Your task to perform on an android device: add a label to a message in the gmail app Image 0: 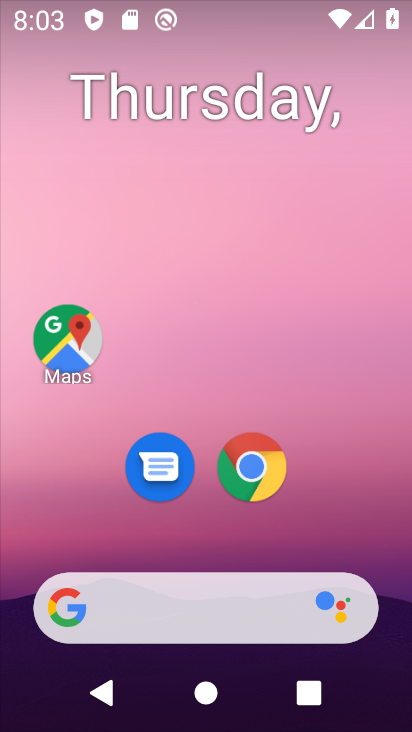
Step 0: drag from (351, 542) to (357, 234)
Your task to perform on an android device: add a label to a message in the gmail app Image 1: 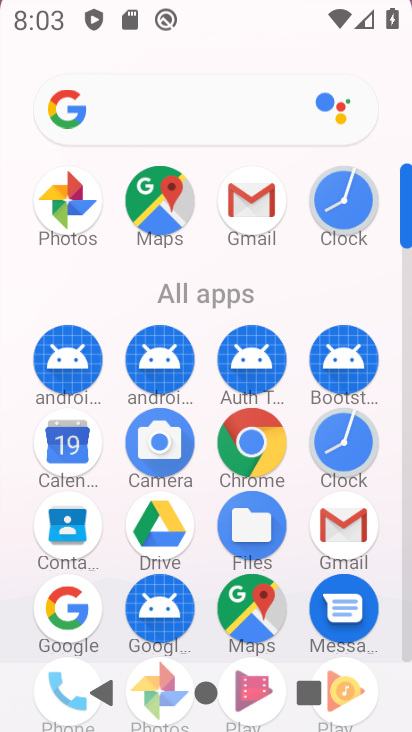
Step 1: drag from (183, 576) to (205, 328)
Your task to perform on an android device: add a label to a message in the gmail app Image 2: 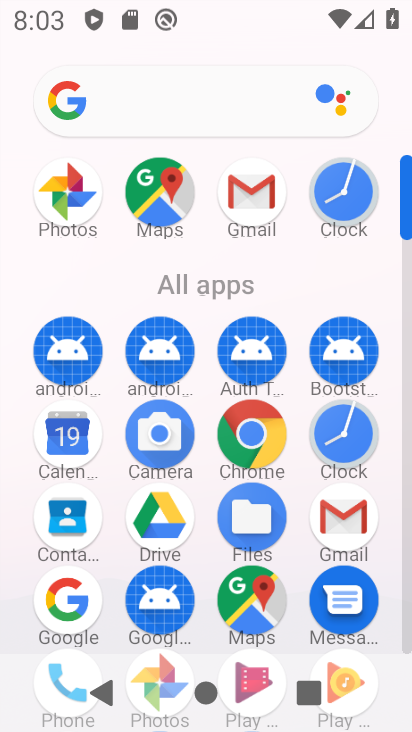
Step 2: click (332, 512)
Your task to perform on an android device: add a label to a message in the gmail app Image 3: 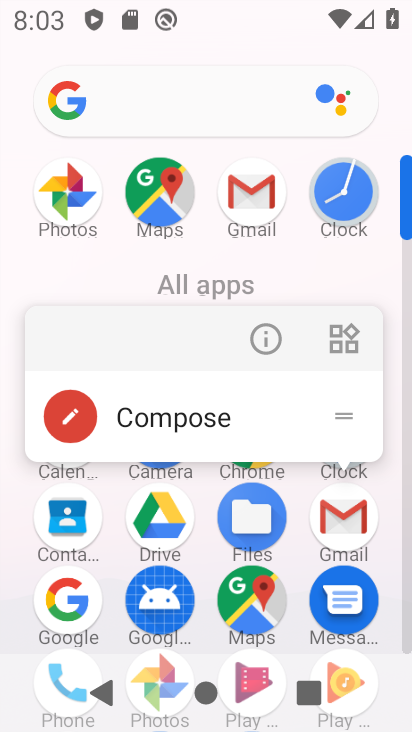
Step 3: click (340, 504)
Your task to perform on an android device: add a label to a message in the gmail app Image 4: 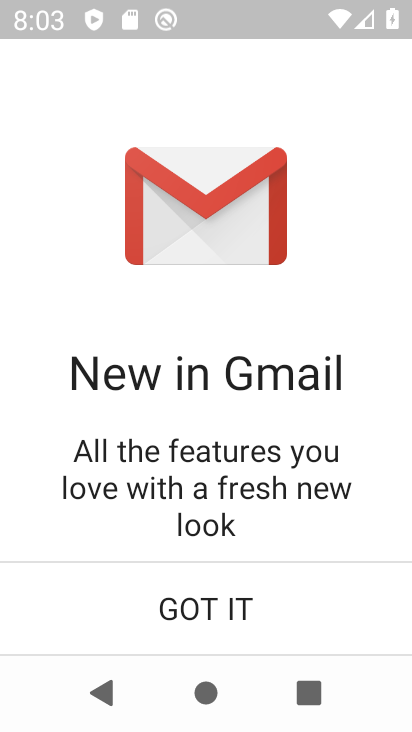
Step 4: click (209, 617)
Your task to perform on an android device: add a label to a message in the gmail app Image 5: 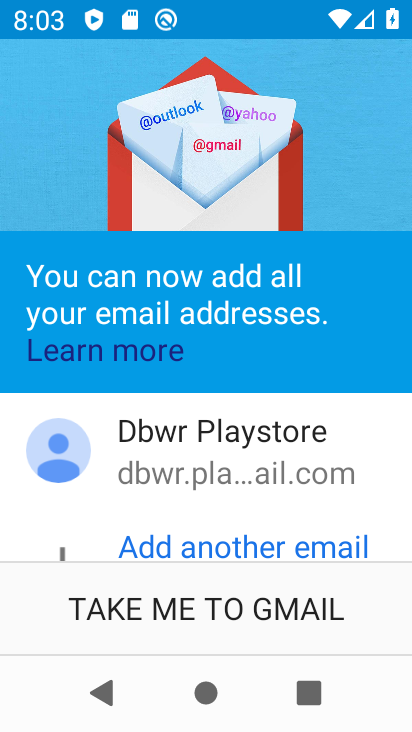
Step 5: click (158, 609)
Your task to perform on an android device: add a label to a message in the gmail app Image 6: 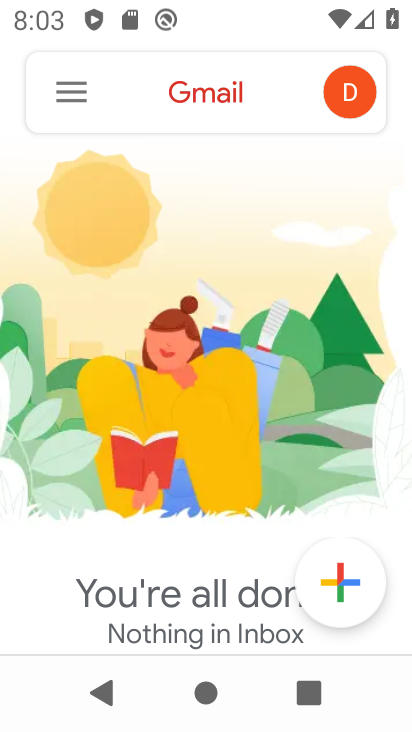
Step 6: click (73, 85)
Your task to perform on an android device: add a label to a message in the gmail app Image 7: 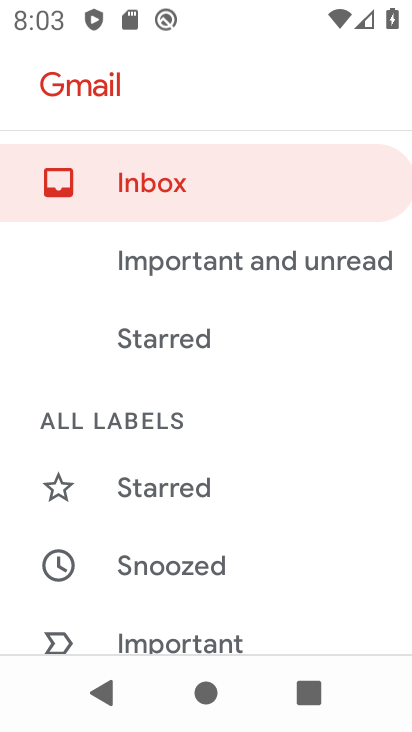
Step 7: drag from (200, 631) to (257, 206)
Your task to perform on an android device: add a label to a message in the gmail app Image 8: 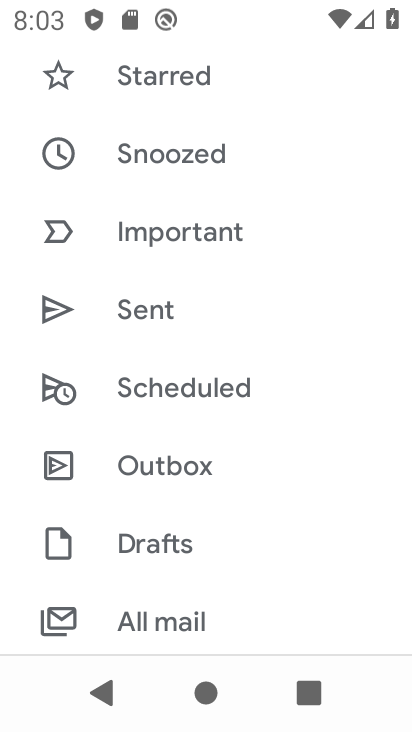
Step 8: click (150, 621)
Your task to perform on an android device: add a label to a message in the gmail app Image 9: 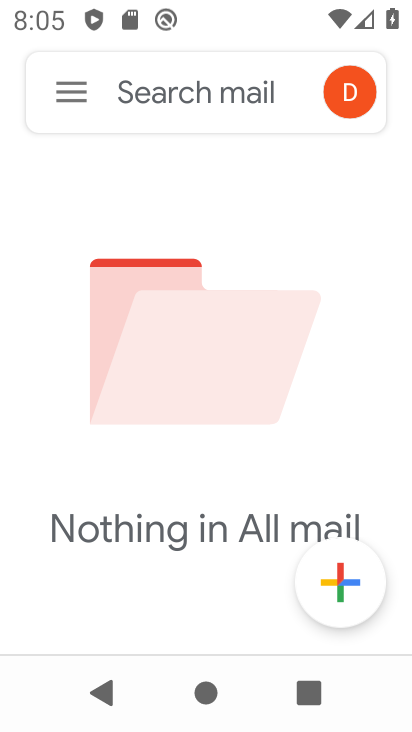
Step 9: task complete